Your task to perform on an android device: change timer sound Image 0: 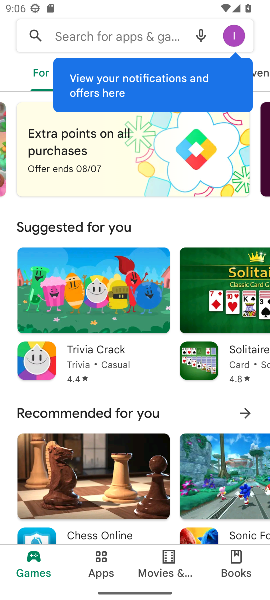
Step 0: press home button
Your task to perform on an android device: change timer sound Image 1: 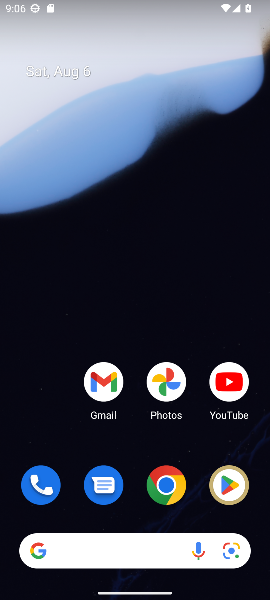
Step 1: drag from (202, 441) to (265, 22)
Your task to perform on an android device: change timer sound Image 2: 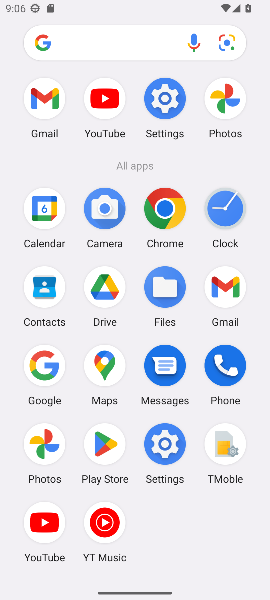
Step 2: click (226, 208)
Your task to perform on an android device: change timer sound Image 3: 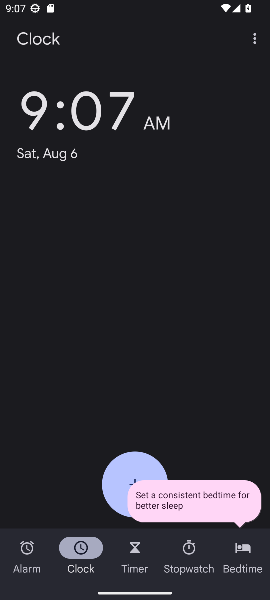
Step 3: click (257, 35)
Your task to perform on an android device: change timer sound Image 4: 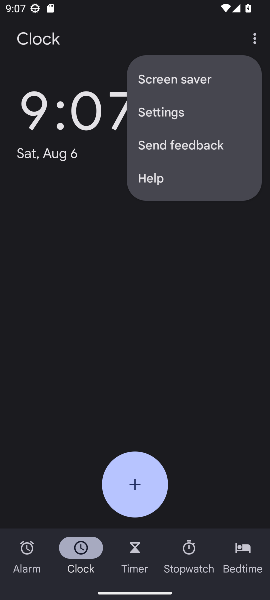
Step 4: click (175, 117)
Your task to perform on an android device: change timer sound Image 5: 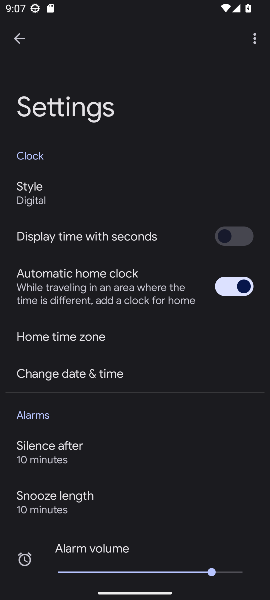
Step 5: drag from (165, 497) to (184, 163)
Your task to perform on an android device: change timer sound Image 6: 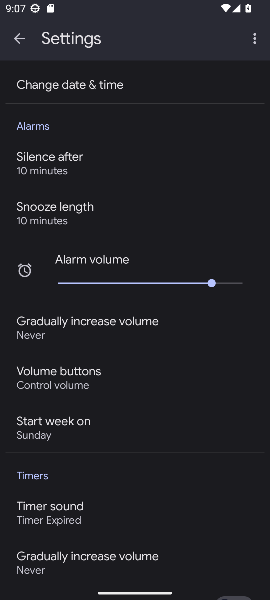
Step 6: click (90, 504)
Your task to perform on an android device: change timer sound Image 7: 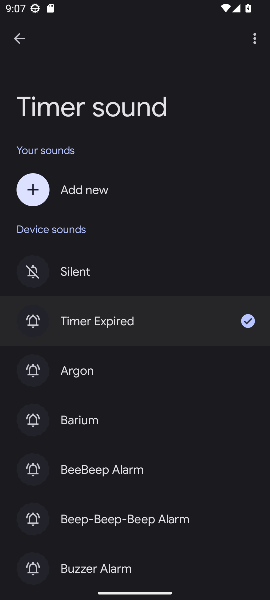
Step 7: click (139, 376)
Your task to perform on an android device: change timer sound Image 8: 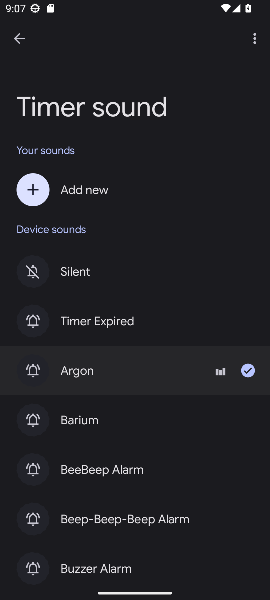
Step 8: task complete